Your task to perform on an android device: Go to Amazon Image 0: 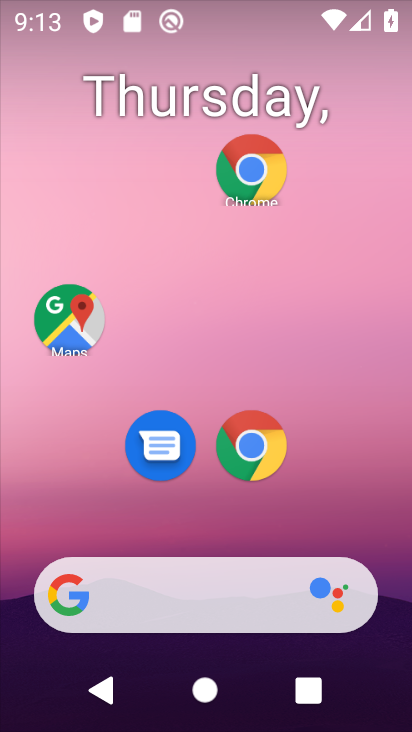
Step 0: click (397, 650)
Your task to perform on an android device: Go to Amazon Image 1: 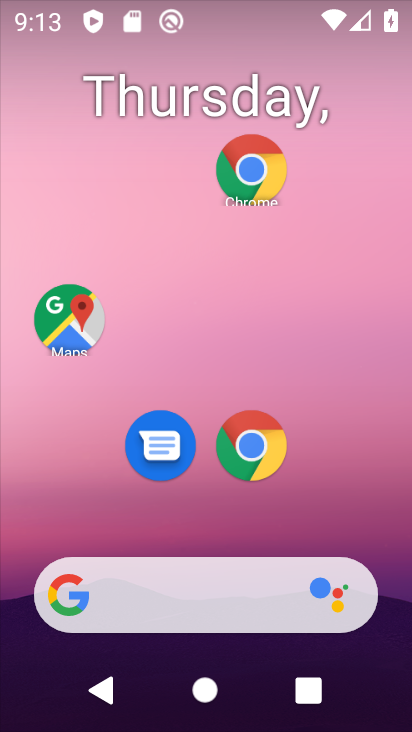
Step 1: click (238, 413)
Your task to perform on an android device: Go to Amazon Image 2: 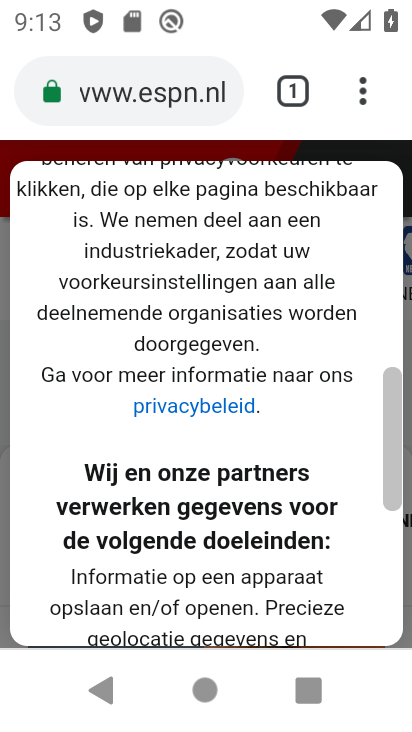
Step 2: click (288, 95)
Your task to perform on an android device: Go to Amazon Image 3: 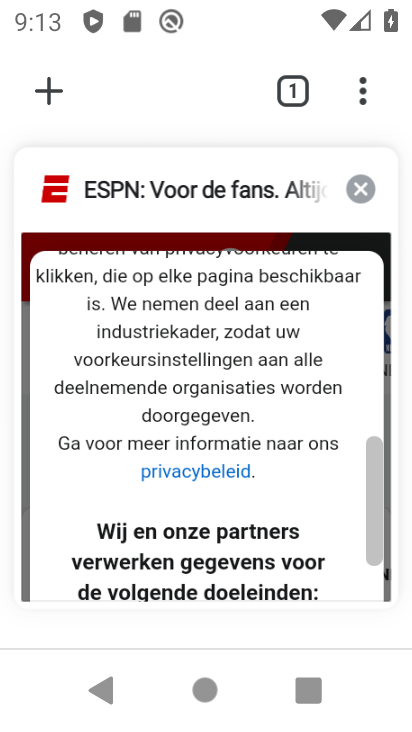
Step 3: click (56, 100)
Your task to perform on an android device: Go to Amazon Image 4: 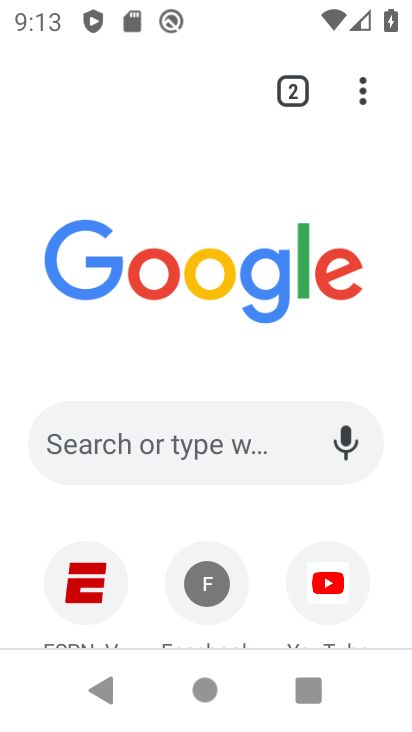
Step 4: drag from (252, 543) to (187, 168)
Your task to perform on an android device: Go to Amazon Image 5: 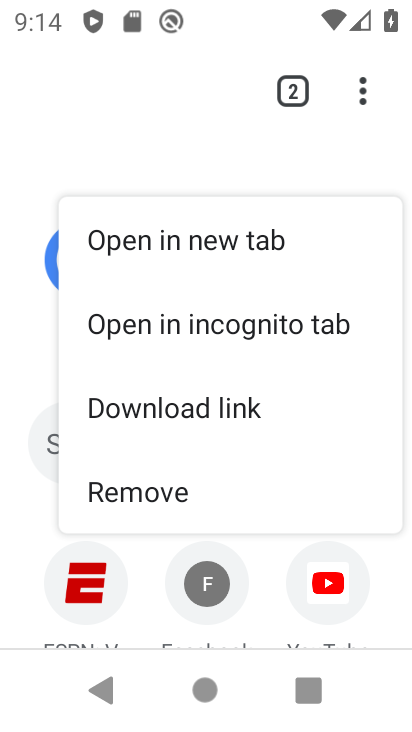
Step 5: click (21, 372)
Your task to perform on an android device: Go to Amazon Image 6: 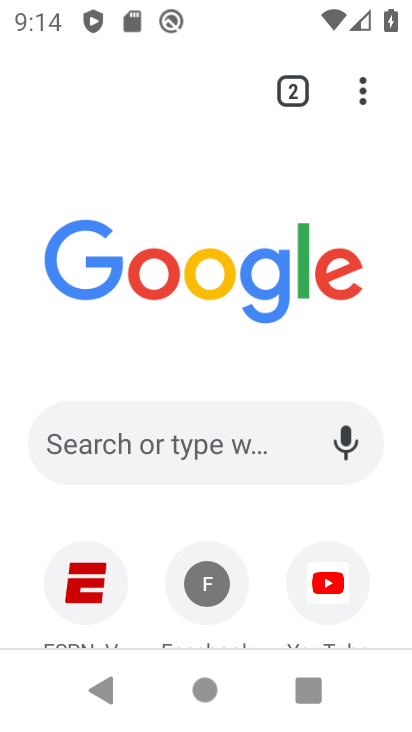
Step 6: drag from (281, 532) to (245, 101)
Your task to perform on an android device: Go to Amazon Image 7: 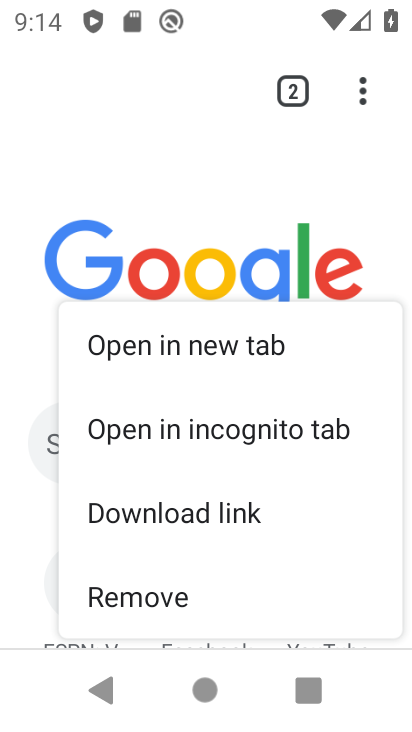
Step 7: click (121, 136)
Your task to perform on an android device: Go to Amazon Image 8: 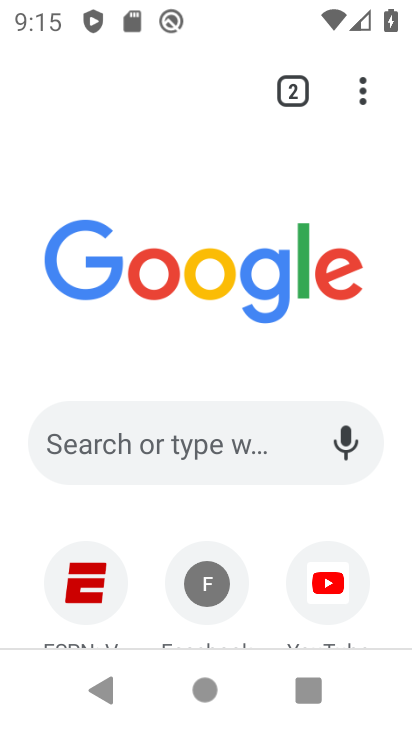
Step 8: drag from (272, 543) to (273, 92)
Your task to perform on an android device: Go to Amazon Image 9: 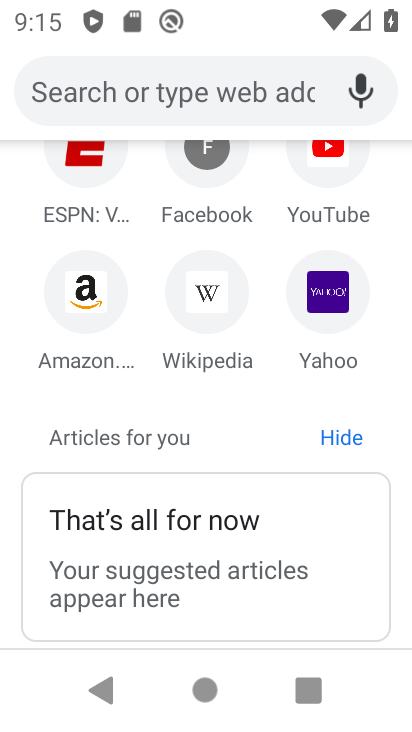
Step 9: click (98, 302)
Your task to perform on an android device: Go to Amazon Image 10: 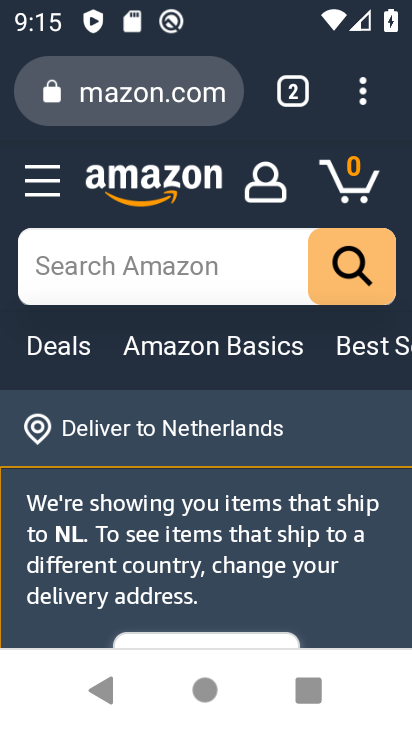
Step 10: task complete